Your task to perform on an android device: uninstall "PUBG MOBILE" Image 0: 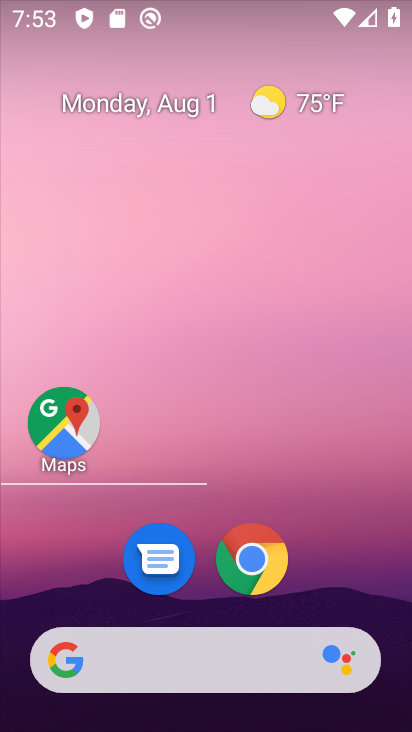
Step 0: click (231, 15)
Your task to perform on an android device: uninstall "PUBG MOBILE" Image 1: 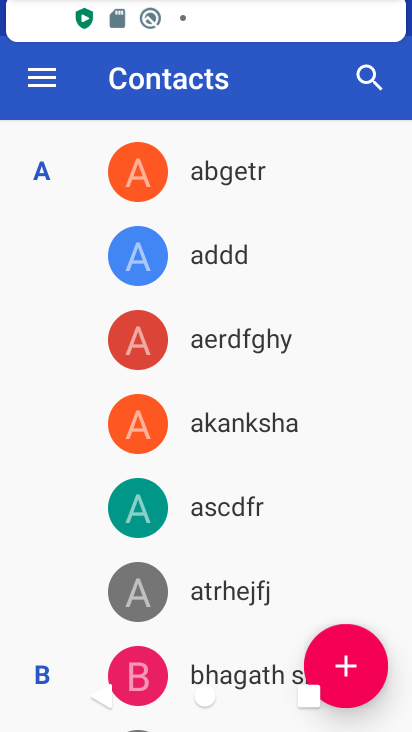
Step 1: press home button
Your task to perform on an android device: uninstall "PUBG MOBILE" Image 2: 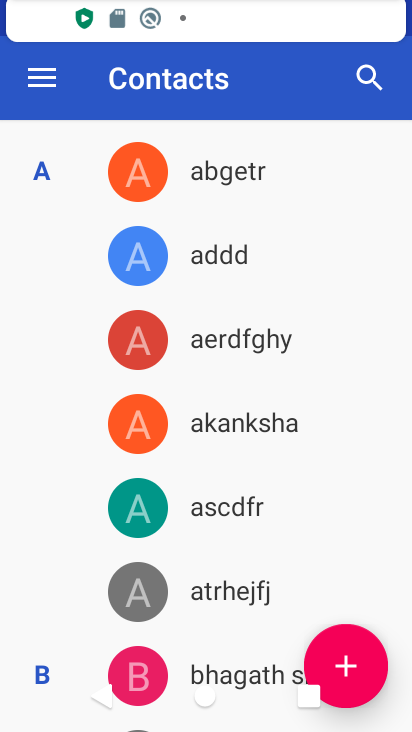
Step 2: drag from (231, 15) to (379, 386)
Your task to perform on an android device: uninstall "PUBG MOBILE" Image 3: 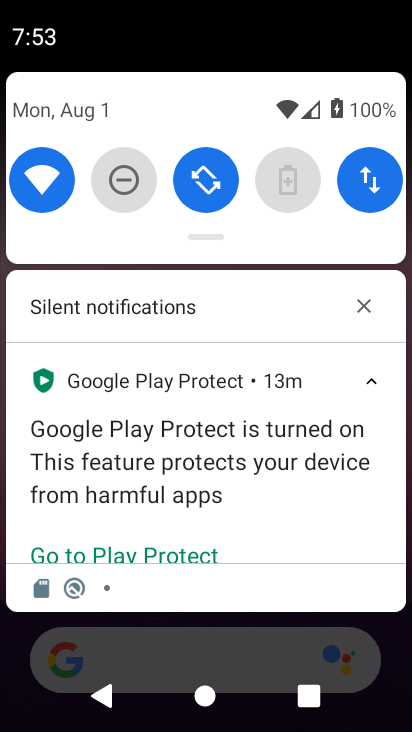
Step 3: press back button
Your task to perform on an android device: uninstall "PUBG MOBILE" Image 4: 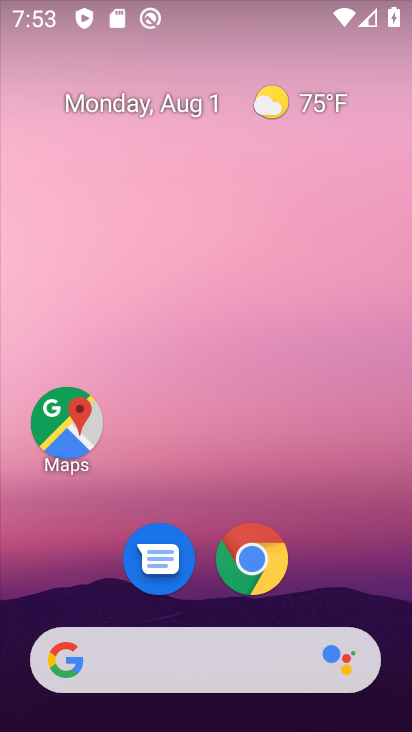
Step 4: drag from (187, 647) to (264, 132)
Your task to perform on an android device: uninstall "PUBG MOBILE" Image 5: 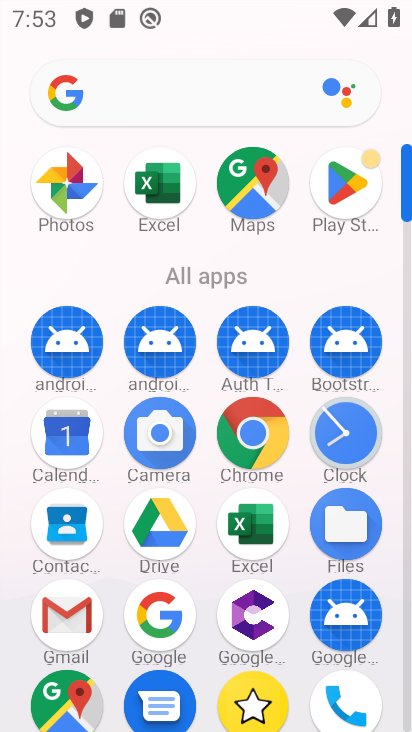
Step 5: click (361, 185)
Your task to perform on an android device: uninstall "PUBG MOBILE" Image 6: 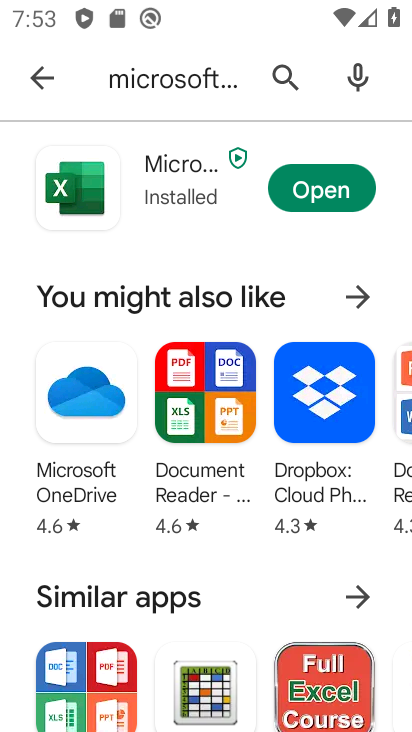
Step 6: click (299, 92)
Your task to perform on an android device: uninstall "PUBG MOBILE" Image 7: 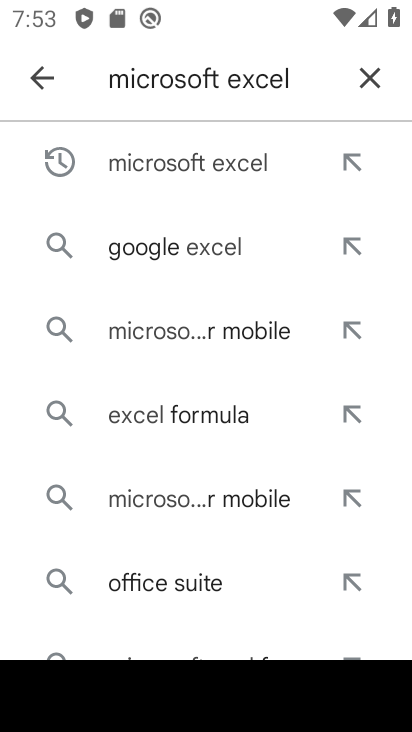
Step 7: click (369, 77)
Your task to perform on an android device: uninstall "PUBG MOBILE" Image 8: 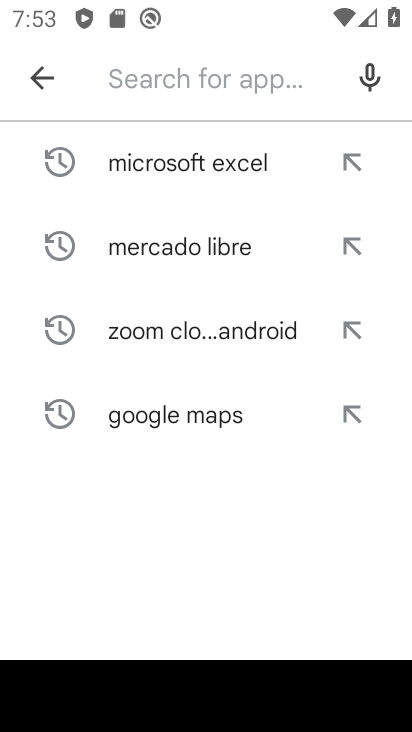
Step 8: type "pubg mobile"
Your task to perform on an android device: uninstall "PUBG MOBILE" Image 9: 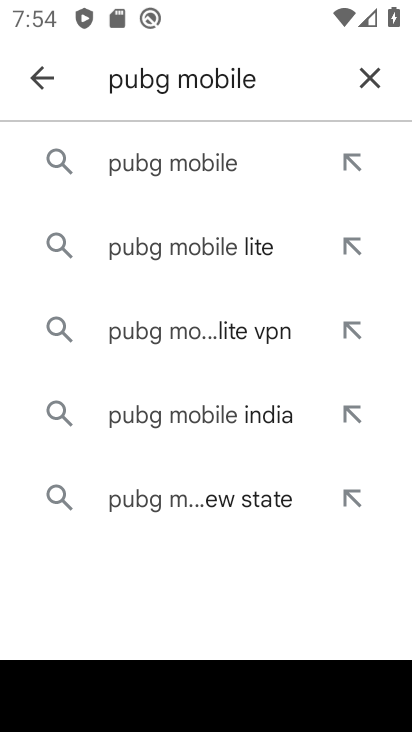
Step 9: click (172, 165)
Your task to perform on an android device: uninstall "PUBG MOBILE" Image 10: 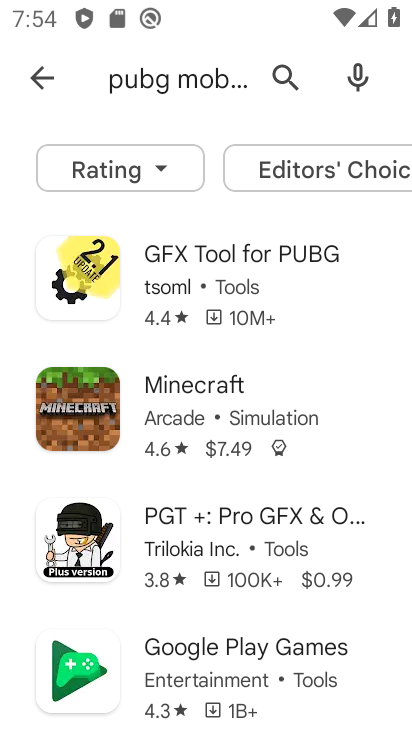
Step 10: task complete